Your task to perform on an android device: Go to battery settings Image 0: 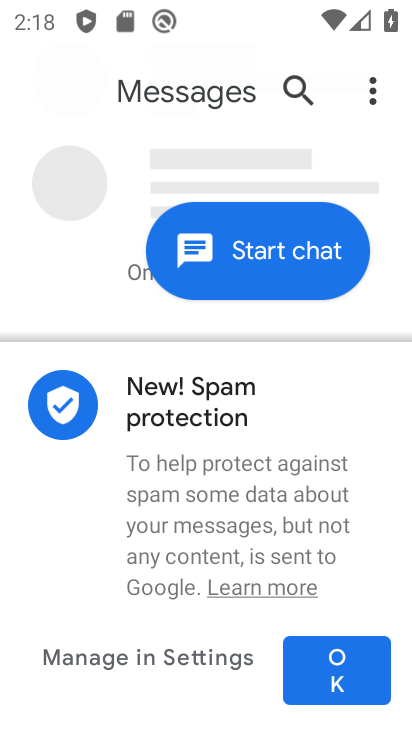
Step 0: press back button
Your task to perform on an android device: Go to battery settings Image 1: 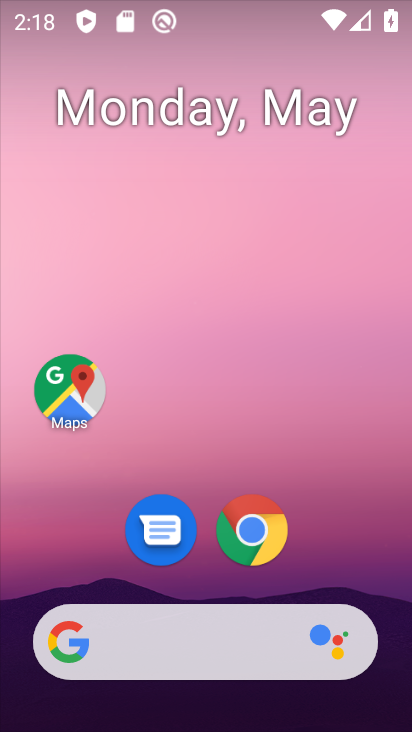
Step 1: drag from (202, 593) to (269, 178)
Your task to perform on an android device: Go to battery settings Image 2: 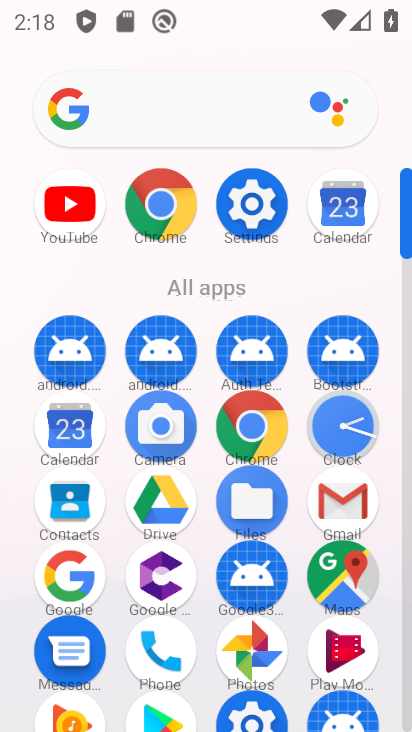
Step 2: click (259, 197)
Your task to perform on an android device: Go to battery settings Image 3: 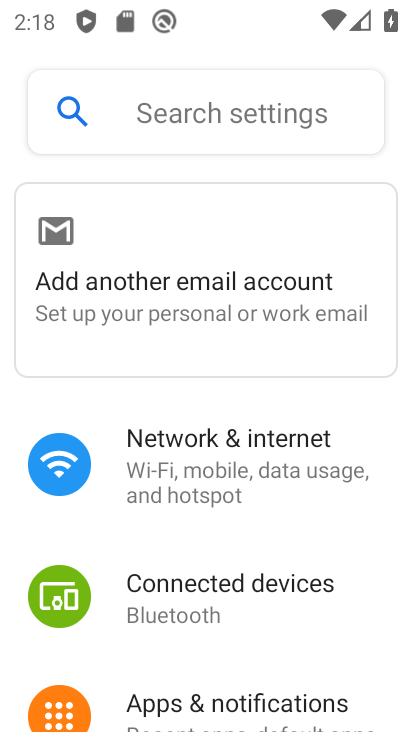
Step 3: drag from (202, 640) to (277, 130)
Your task to perform on an android device: Go to battery settings Image 4: 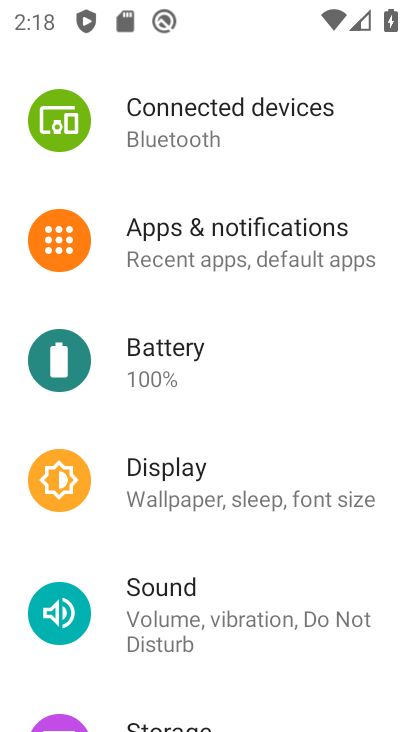
Step 4: click (137, 357)
Your task to perform on an android device: Go to battery settings Image 5: 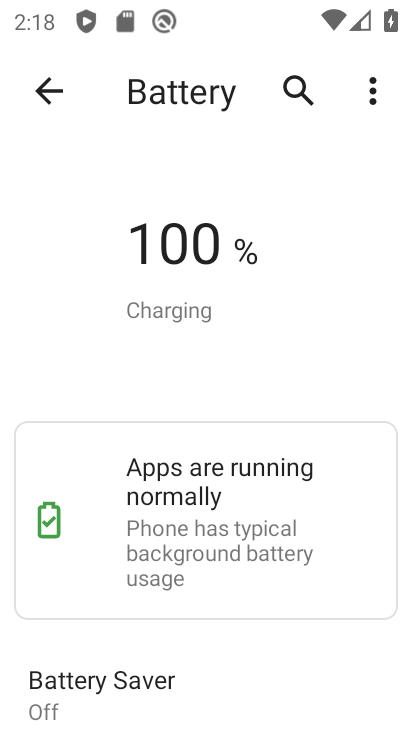
Step 5: task complete